Your task to perform on an android device: Open CNN.com Image 0: 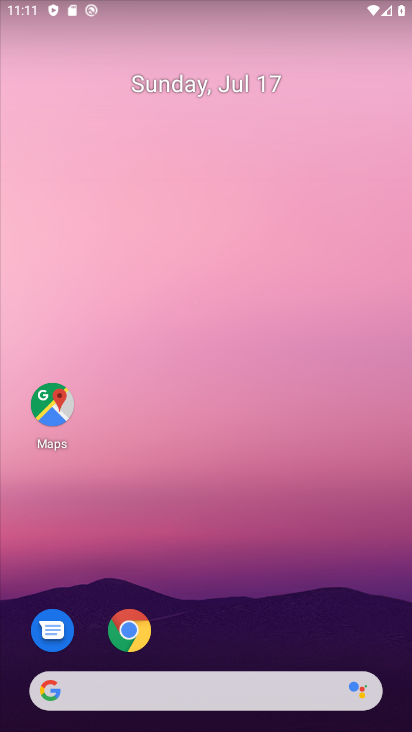
Step 0: click (133, 637)
Your task to perform on an android device: Open CNN.com Image 1: 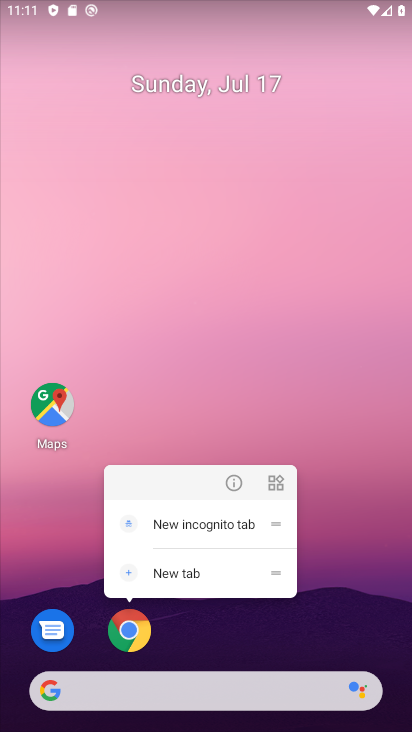
Step 1: click (129, 637)
Your task to perform on an android device: Open CNN.com Image 2: 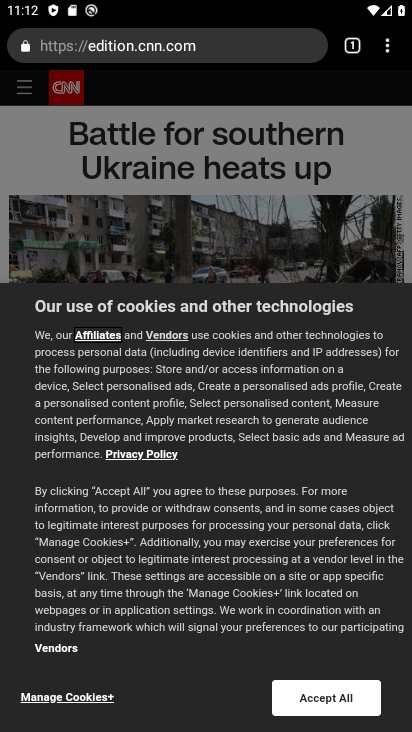
Step 2: click (63, 89)
Your task to perform on an android device: Open CNN.com Image 3: 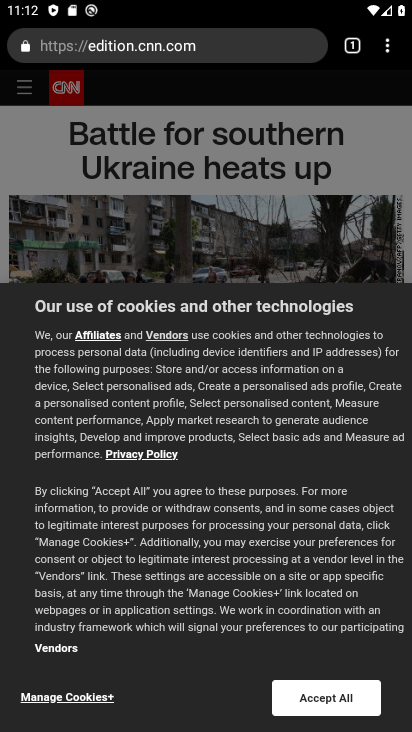
Step 3: click (361, 705)
Your task to perform on an android device: Open CNN.com Image 4: 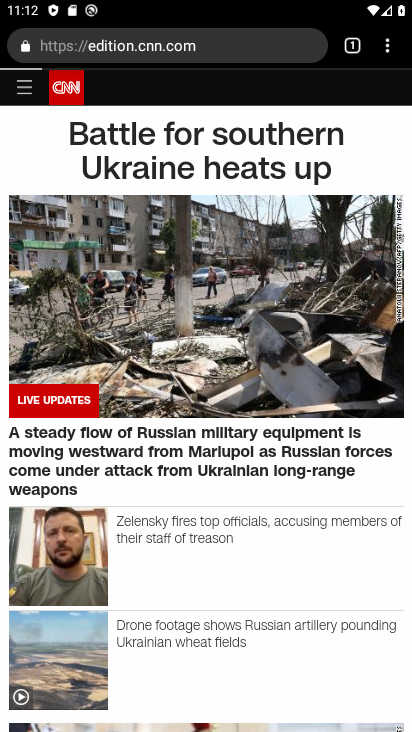
Step 4: click (66, 94)
Your task to perform on an android device: Open CNN.com Image 5: 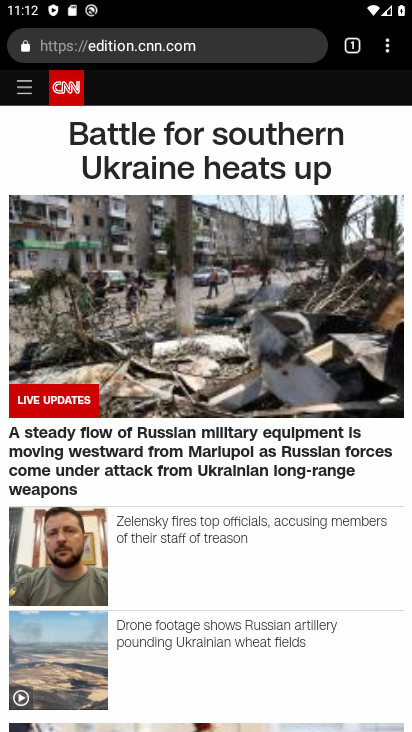
Step 5: task complete